Your task to perform on an android device: refresh tabs in the chrome app Image 0: 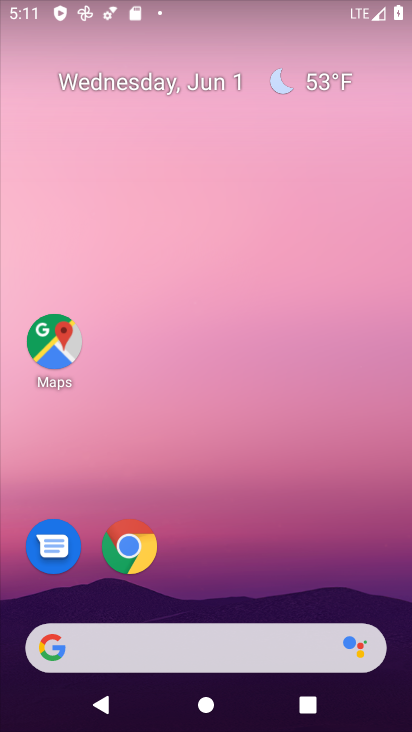
Step 0: drag from (281, 511) to (195, 11)
Your task to perform on an android device: refresh tabs in the chrome app Image 1: 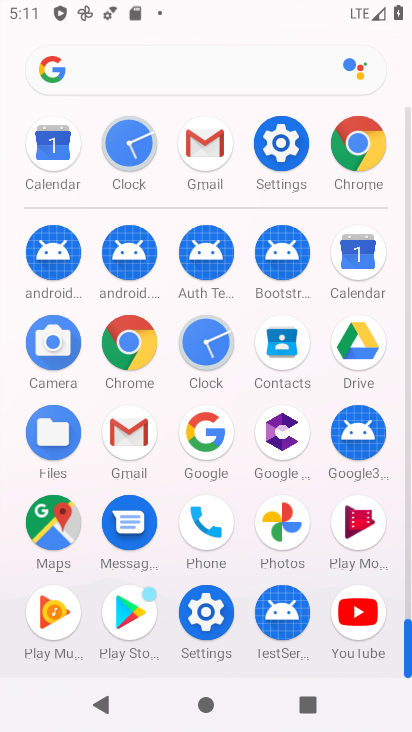
Step 1: drag from (12, 608) to (12, 271)
Your task to perform on an android device: refresh tabs in the chrome app Image 2: 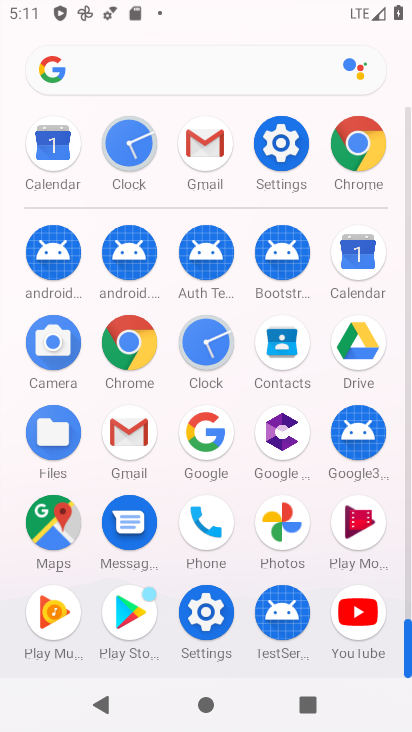
Step 2: click (132, 338)
Your task to perform on an android device: refresh tabs in the chrome app Image 3: 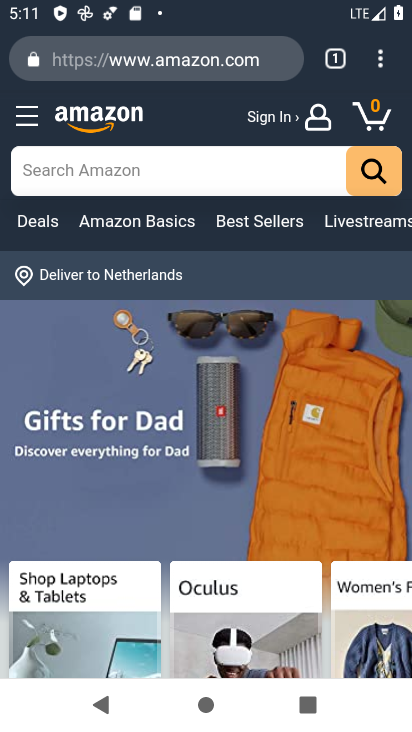
Step 3: task complete